Your task to perform on an android device: Go to privacy settings Image 0: 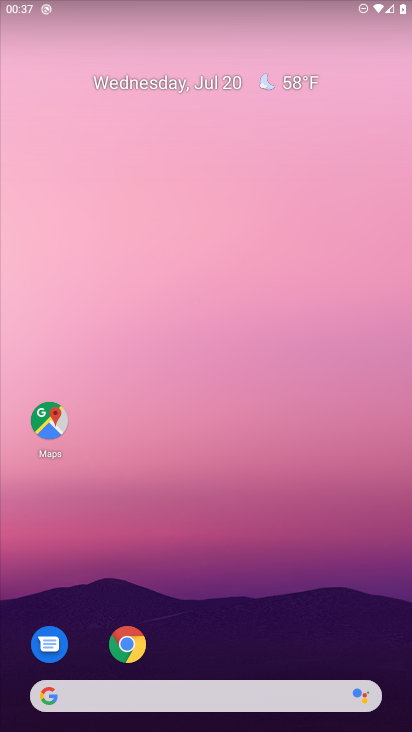
Step 0: drag from (69, 580) to (186, 249)
Your task to perform on an android device: Go to privacy settings Image 1: 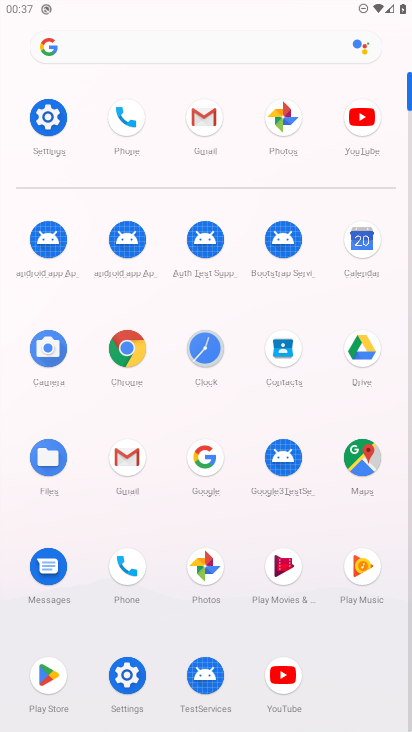
Step 1: click (123, 690)
Your task to perform on an android device: Go to privacy settings Image 2: 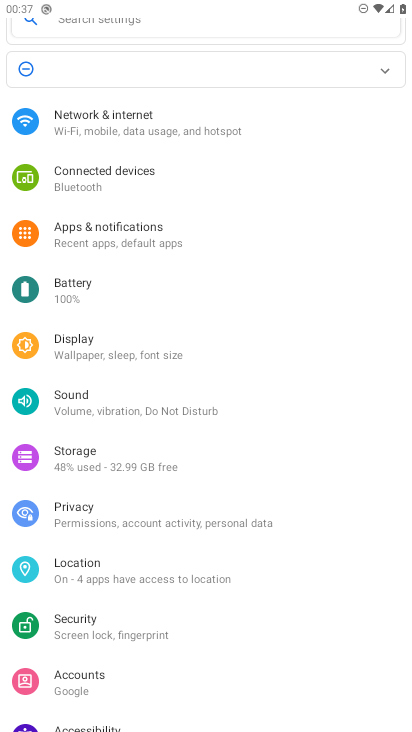
Step 2: click (94, 512)
Your task to perform on an android device: Go to privacy settings Image 3: 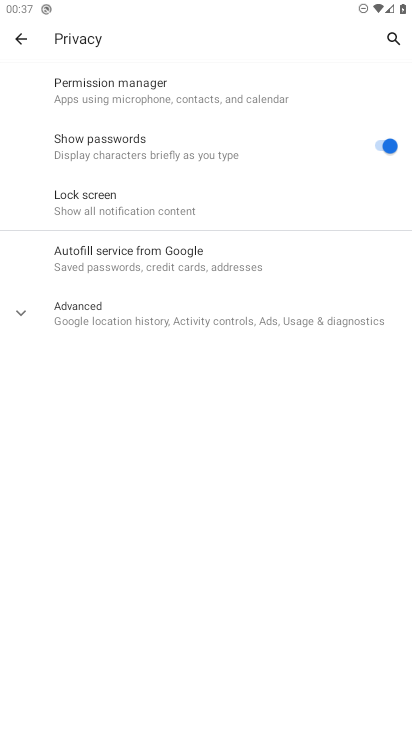
Step 3: task complete